Your task to perform on an android device: show emergency info Image 0: 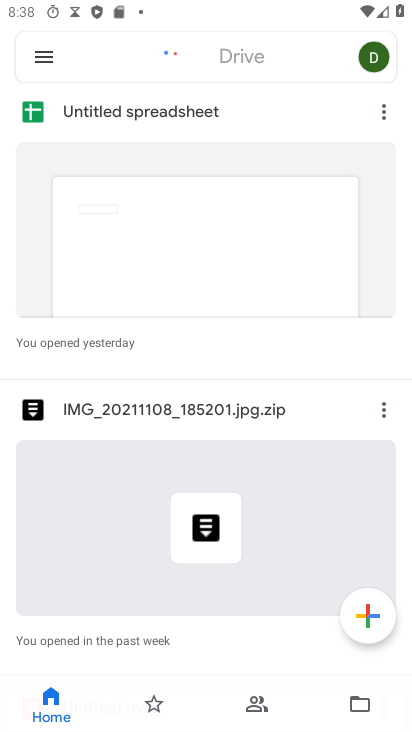
Step 0: press home button
Your task to perform on an android device: show emergency info Image 1: 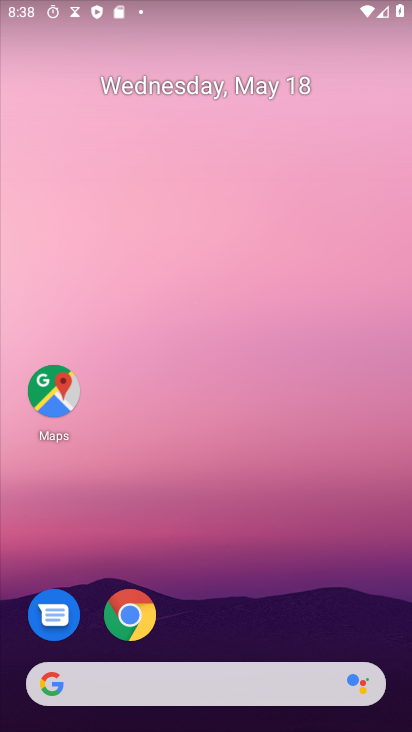
Step 1: drag from (229, 591) to (239, 63)
Your task to perform on an android device: show emergency info Image 2: 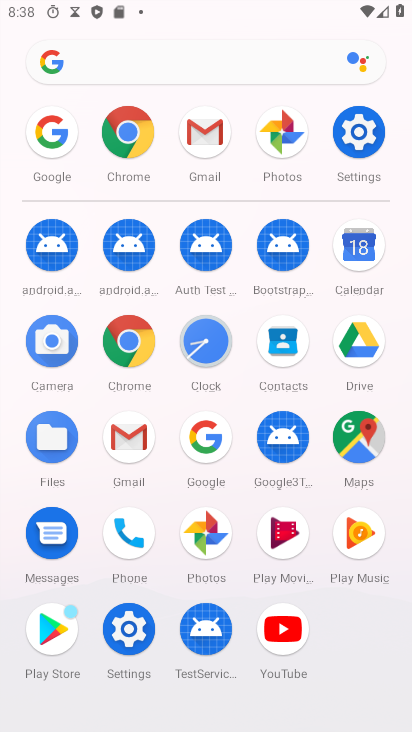
Step 2: click (359, 132)
Your task to perform on an android device: show emergency info Image 3: 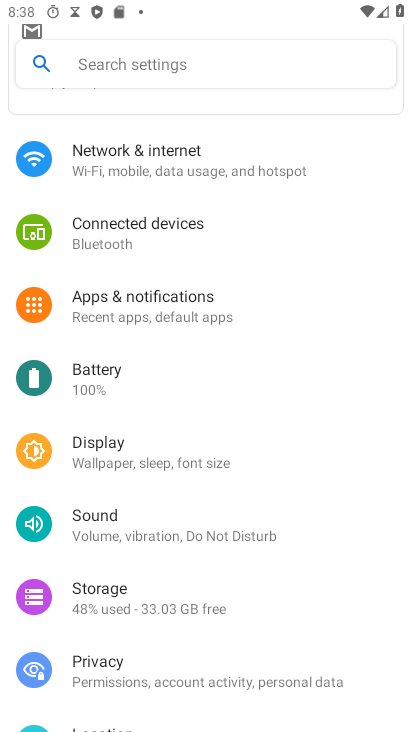
Step 3: drag from (264, 654) to (298, 196)
Your task to perform on an android device: show emergency info Image 4: 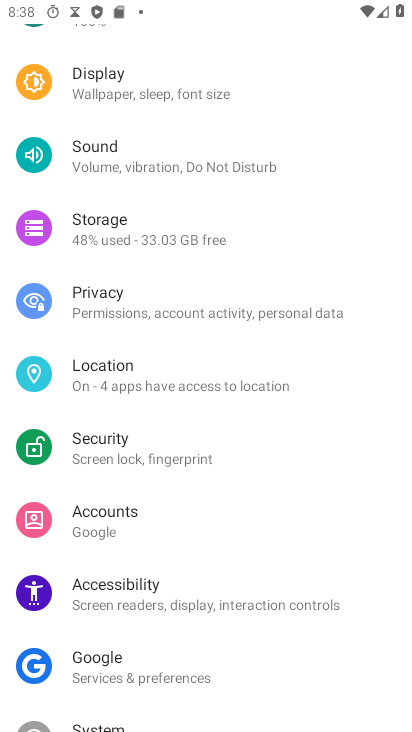
Step 4: drag from (275, 647) to (284, 162)
Your task to perform on an android device: show emergency info Image 5: 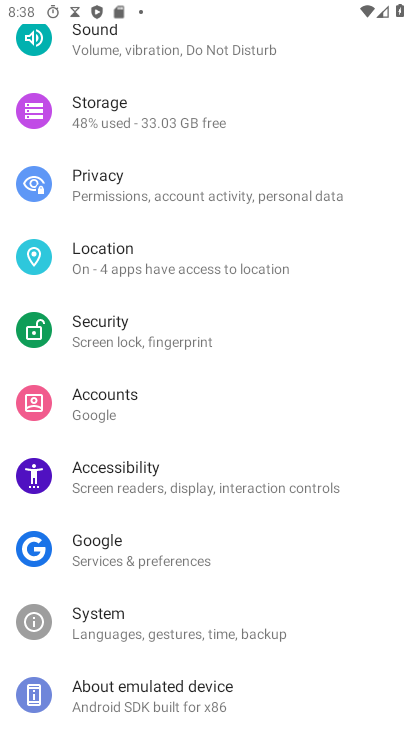
Step 5: click (197, 701)
Your task to perform on an android device: show emergency info Image 6: 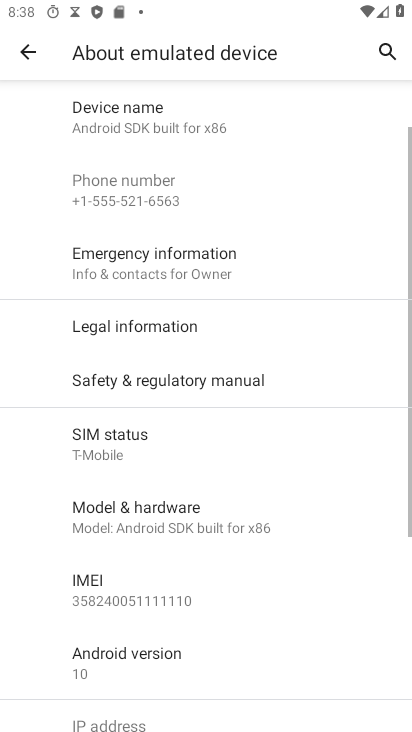
Step 6: click (205, 266)
Your task to perform on an android device: show emergency info Image 7: 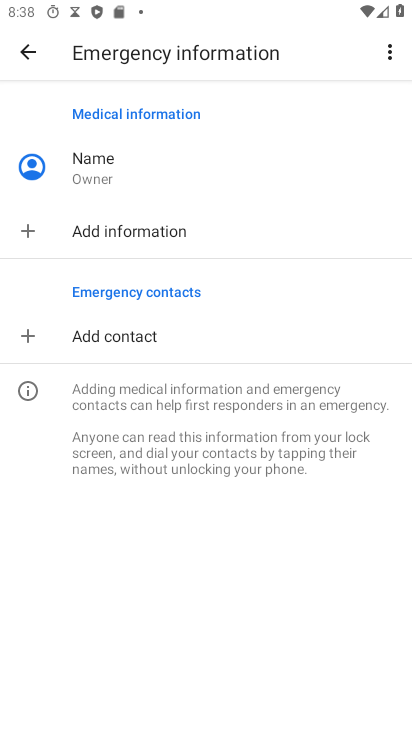
Step 7: task complete